Your task to perform on an android device: Check the weather Image 0: 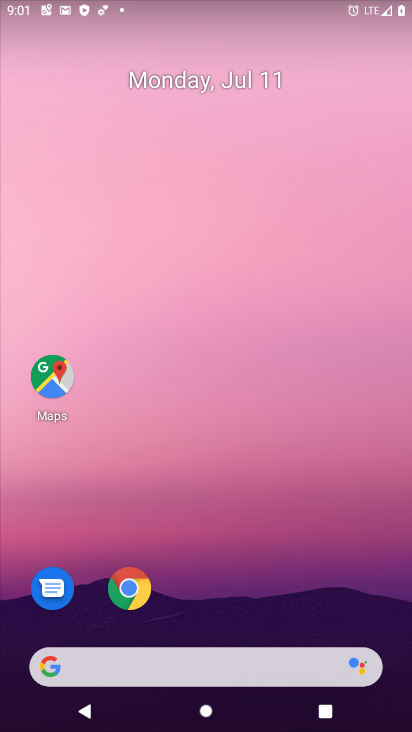
Step 0: click (148, 672)
Your task to perform on an android device: Check the weather Image 1: 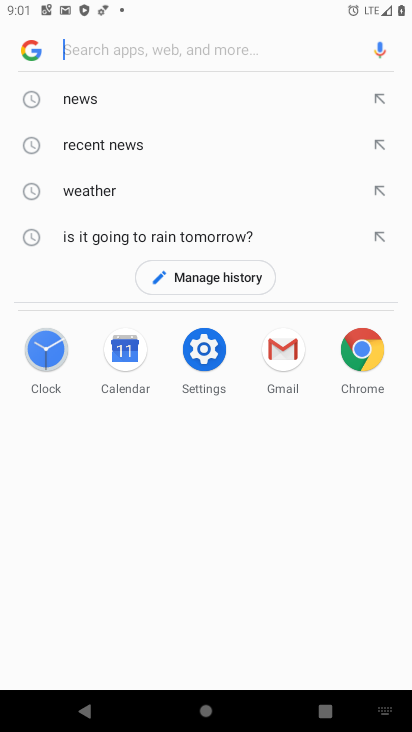
Step 1: click (89, 188)
Your task to perform on an android device: Check the weather Image 2: 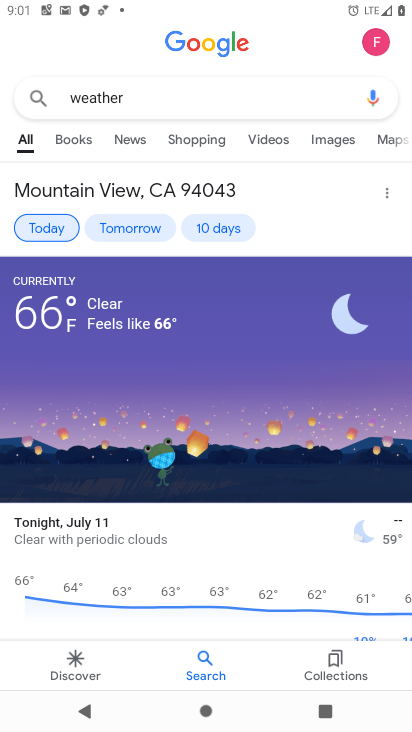
Step 2: task complete